Your task to perform on an android device: turn off sleep mode Image 0: 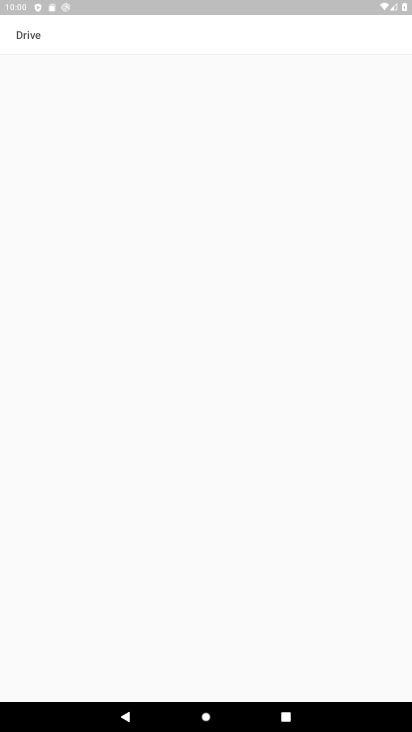
Step 0: press home button
Your task to perform on an android device: turn off sleep mode Image 1: 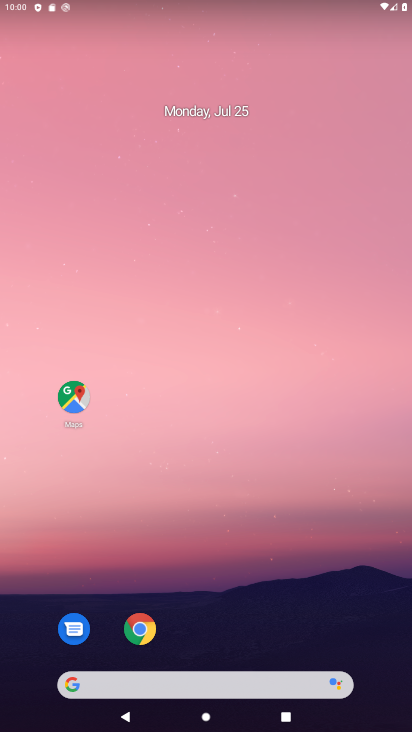
Step 1: drag from (326, 590) to (228, 31)
Your task to perform on an android device: turn off sleep mode Image 2: 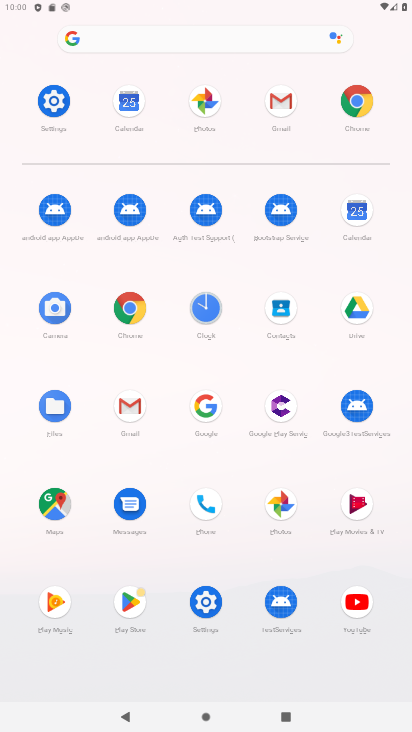
Step 2: click (66, 104)
Your task to perform on an android device: turn off sleep mode Image 3: 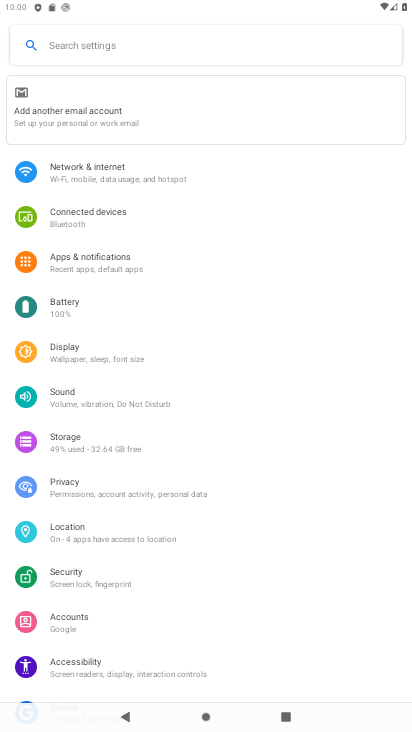
Step 3: click (113, 363)
Your task to perform on an android device: turn off sleep mode Image 4: 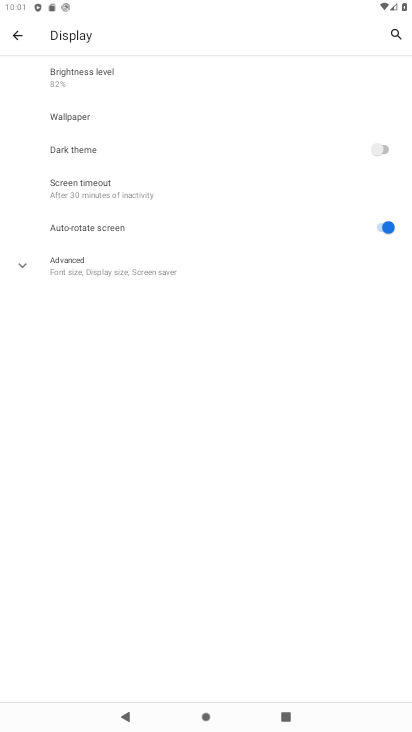
Step 4: click (89, 188)
Your task to perform on an android device: turn off sleep mode Image 5: 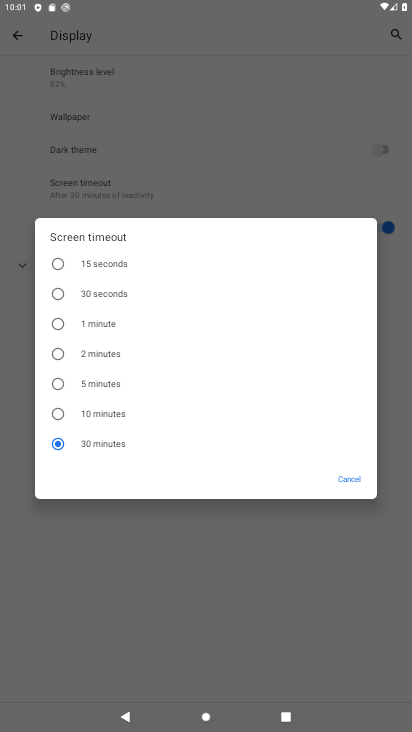
Step 5: task complete